Your task to perform on an android device: Open Google Maps and go to "Timeline" Image 0: 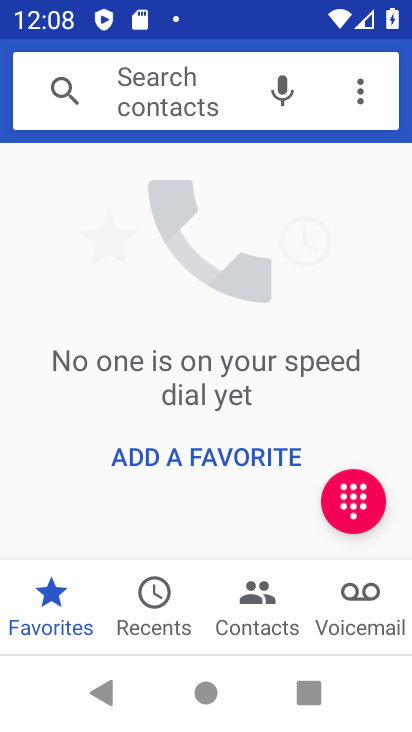
Step 0: press back button
Your task to perform on an android device: Open Google Maps and go to "Timeline" Image 1: 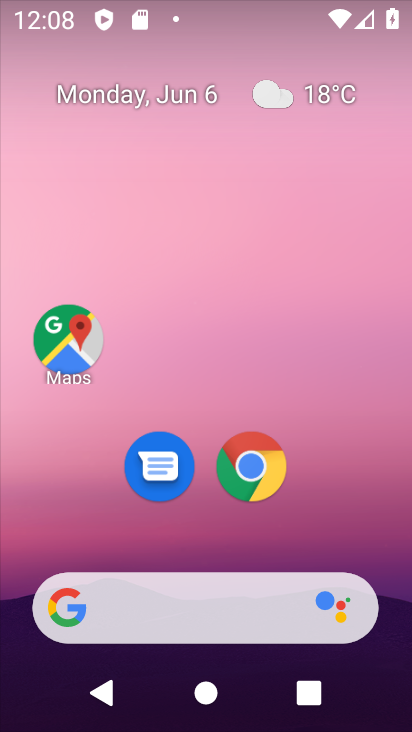
Step 1: drag from (351, 516) to (253, 20)
Your task to perform on an android device: Open Google Maps and go to "Timeline" Image 2: 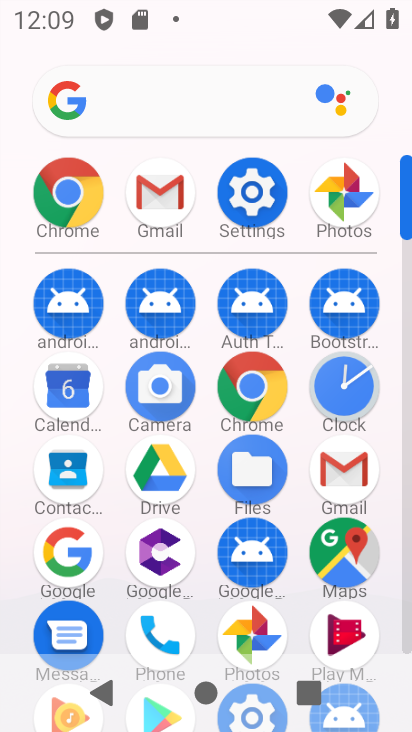
Step 2: click (339, 553)
Your task to perform on an android device: Open Google Maps and go to "Timeline" Image 3: 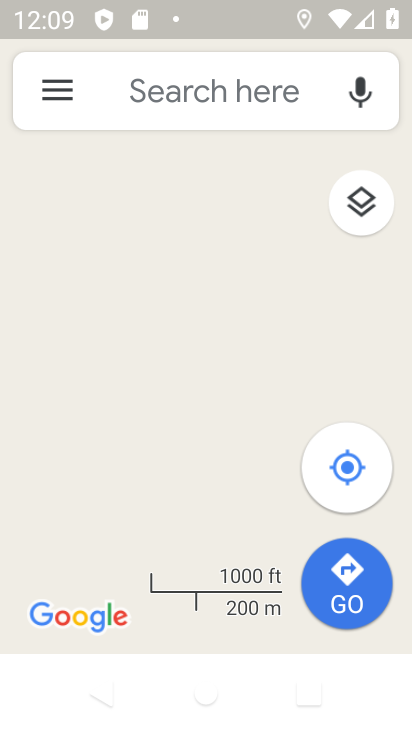
Step 3: click (62, 91)
Your task to perform on an android device: Open Google Maps and go to "Timeline" Image 4: 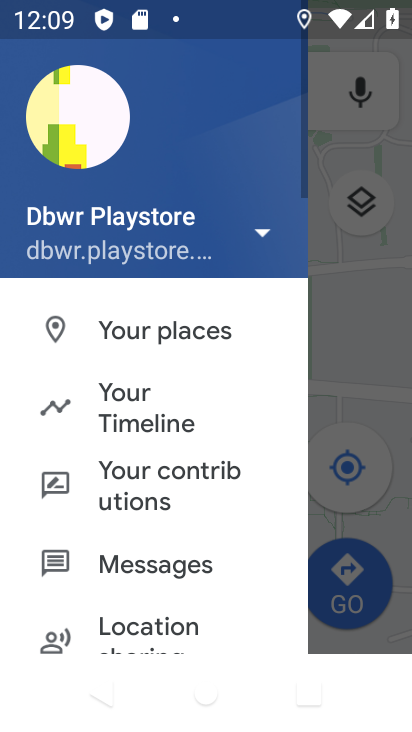
Step 4: click (62, 91)
Your task to perform on an android device: Open Google Maps and go to "Timeline" Image 5: 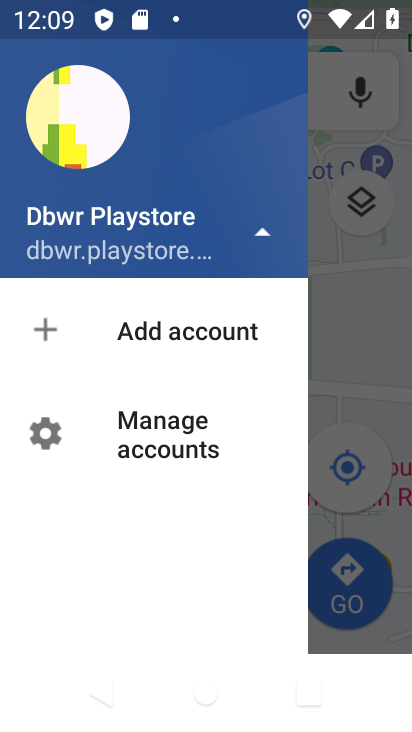
Step 5: click (332, 430)
Your task to perform on an android device: Open Google Maps and go to "Timeline" Image 6: 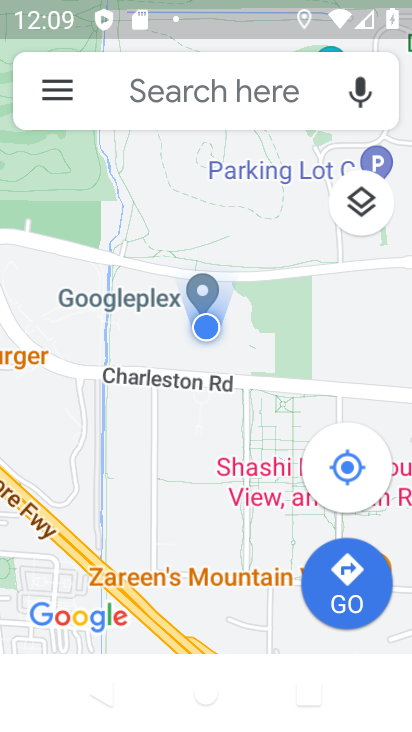
Step 6: click (63, 81)
Your task to perform on an android device: Open Google Maps and go to "Timeline" Image 7: 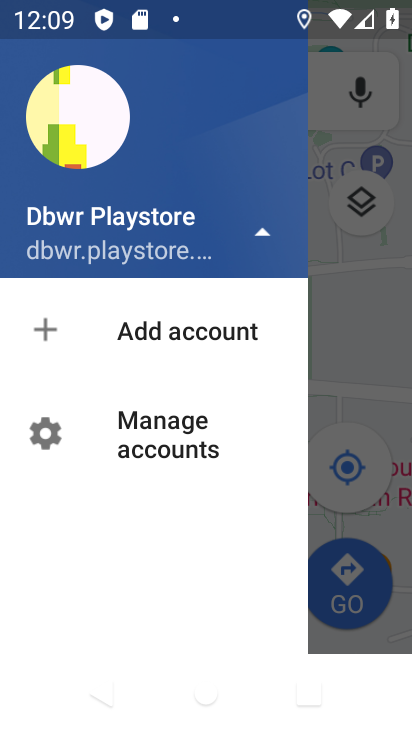
Step 7: click (311, 356)
Your task to perform on an android device: Open Google Maps and go to "Timeline" Image 8: 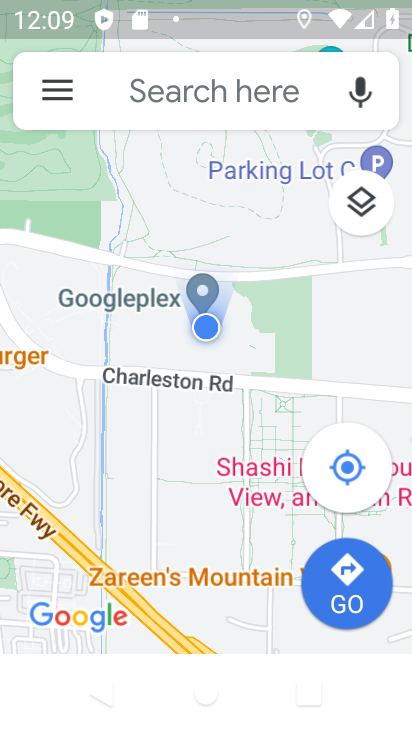
Step 8: click (61, 78)
Your task to perform on an android device: Open Google Maps and go to "Timeline" Image 9: 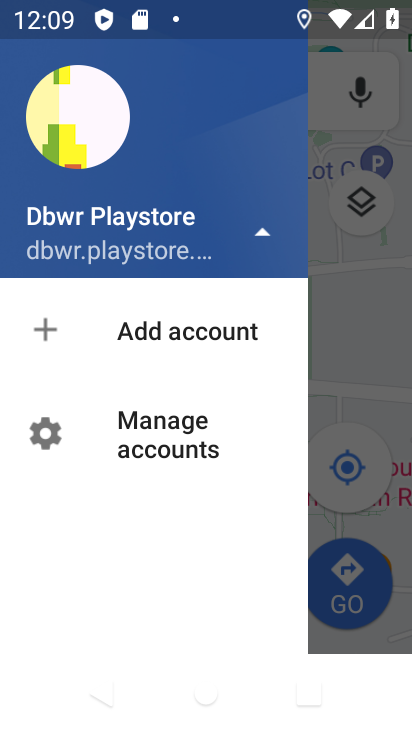
Step 9: click (255, 230)
Your task to perform on an android device: Open Google Maps and go to "Timeline" Image 10: 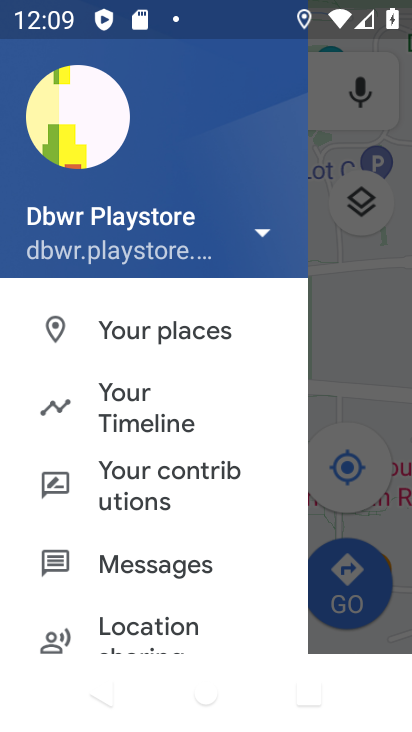
Step 10: click (166, 419)
Your task to perform on an android device: Open Google Maps and go to "Timeline" Image 11: 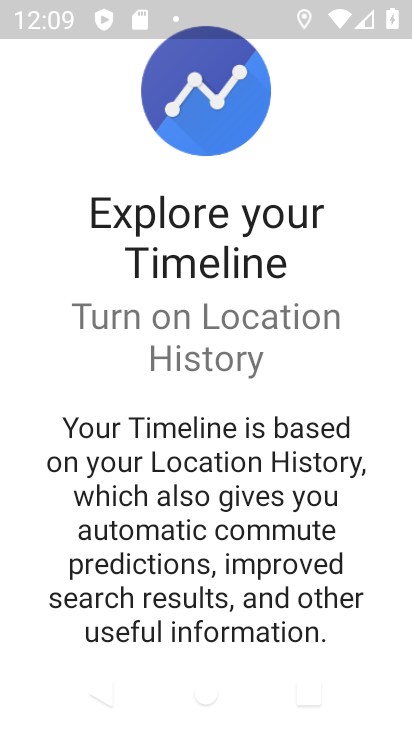
Step 11: drag from (243, 596) to (280, 220)
Your task to perform on an android device: Open Google Maps and go to "Timeline" Image 12: 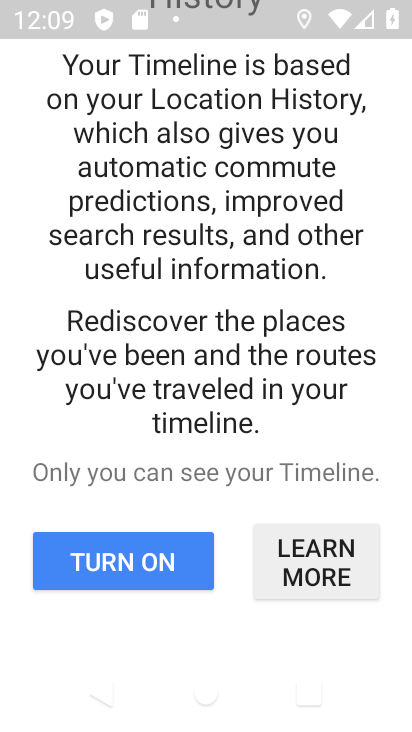
Step 12: click (139, 563)
Your task to perform on an android device: Open Google Maps and go to "Timeline" Image 13: 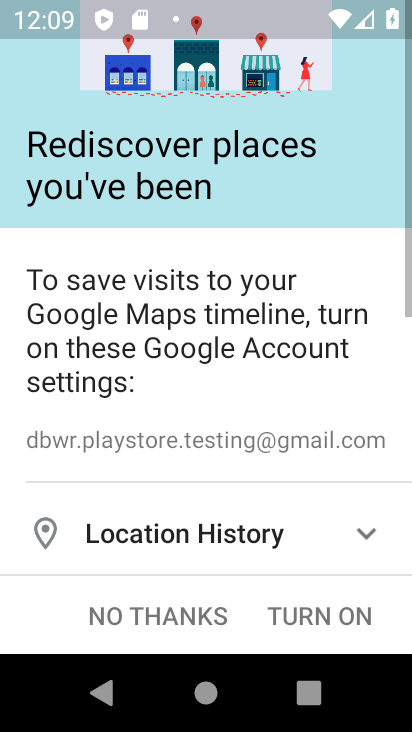
Step 13: click (321, 597)
Your task to perform on an android device: Open Google Maps and go to "Timeline" Image 14: 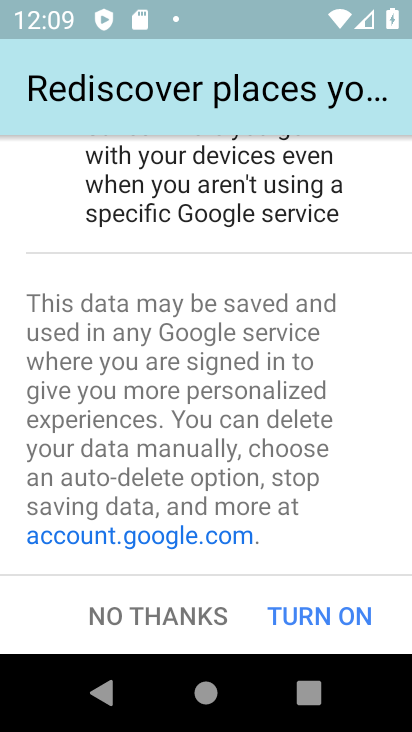
Step 14: click (322, 611)
Your task to perform on an android device: Open Google Maps and go to "Timeline" Image 15: 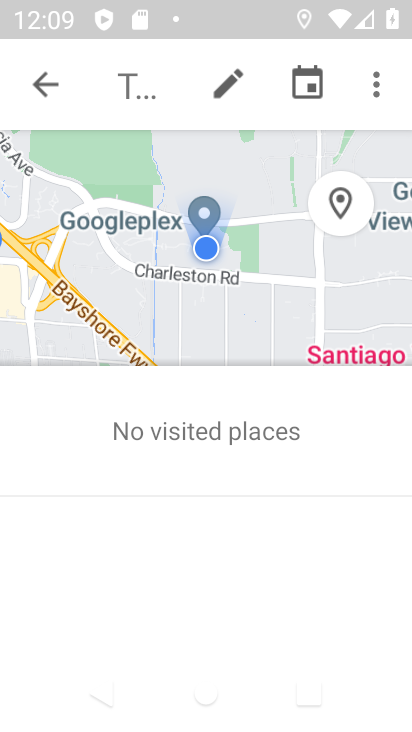
Step 15: task complete